Your task to perform on an android device: Open Youtube and go to "Your channel" Image 0: 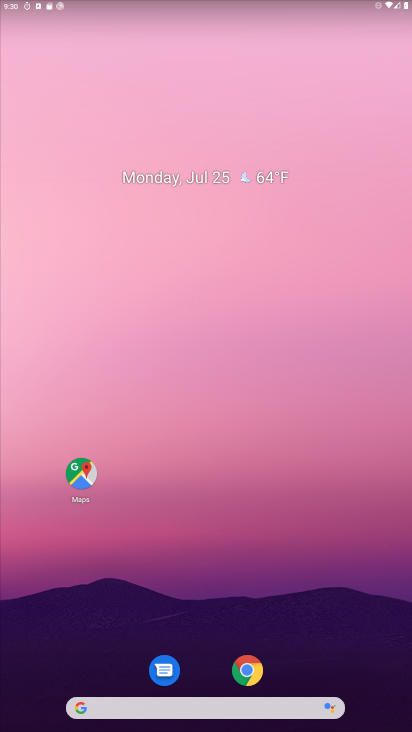
Step 0: drag from (382, 693) to (179, 51)
Your task to perform on an android device: Open Youtube and go to "Your channel" Image 1: 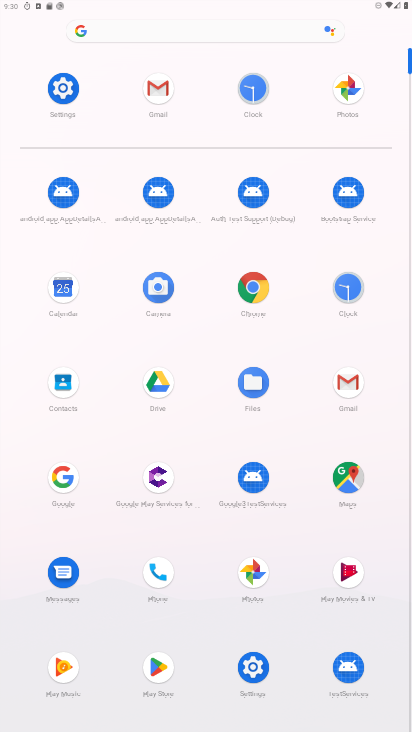
Step 1: drag from (289, 487) to (268, 56)
Your task to perform on an android device: Open Youtube and go to "Your channel" Image 2: 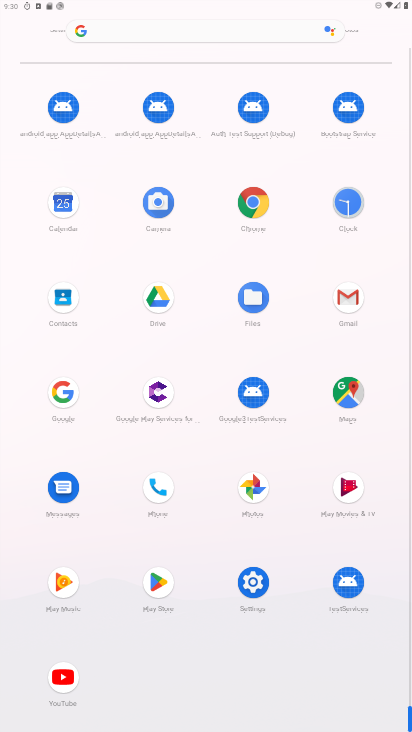
Step 2: click (77, 679)
Your task to perform on an android device: Open Youtube and go to "Your channel" Image 3: 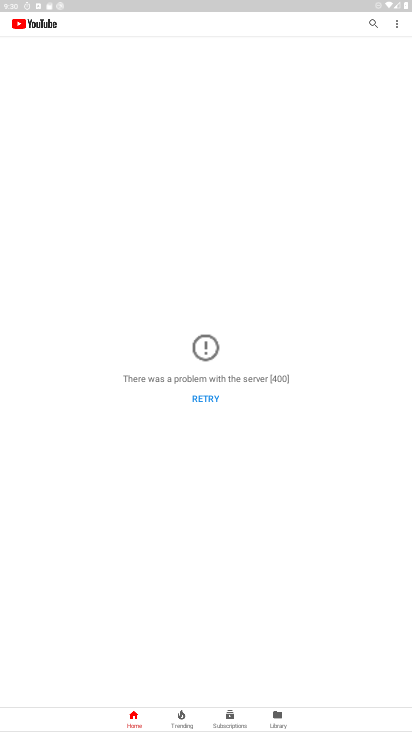
Step 3: task complete